Your task to perform on an android device: Turn on the flashlight Image 0: 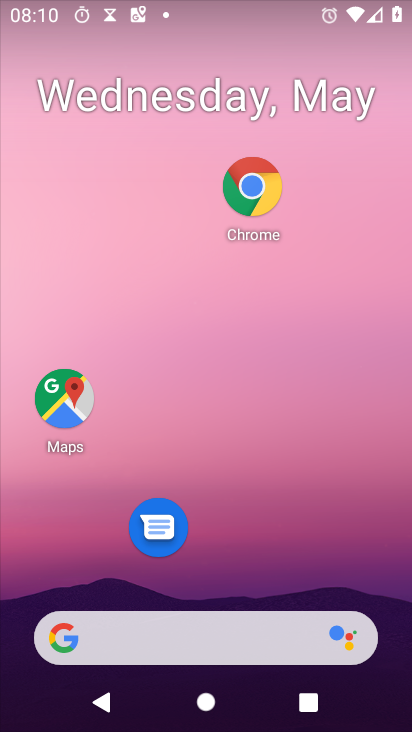
Step 0: drag from (272, 25) to (261, 543)
Your task to perform on an android device: Turn on the flashlight Image 1: 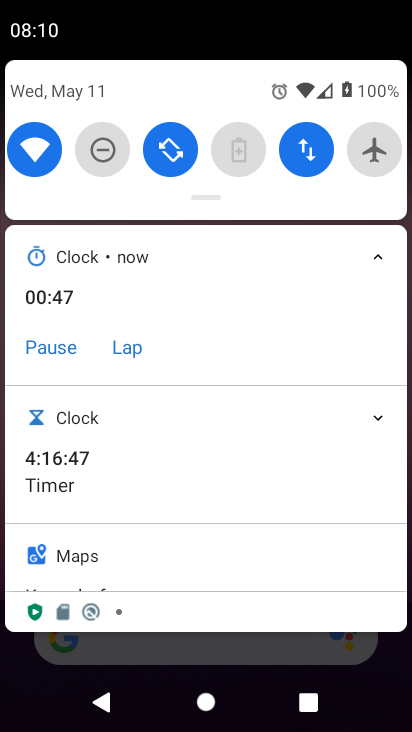
Step 1: task complete